Your task to perform on an android device: Open calendar and show me the third week of next month Image 0: 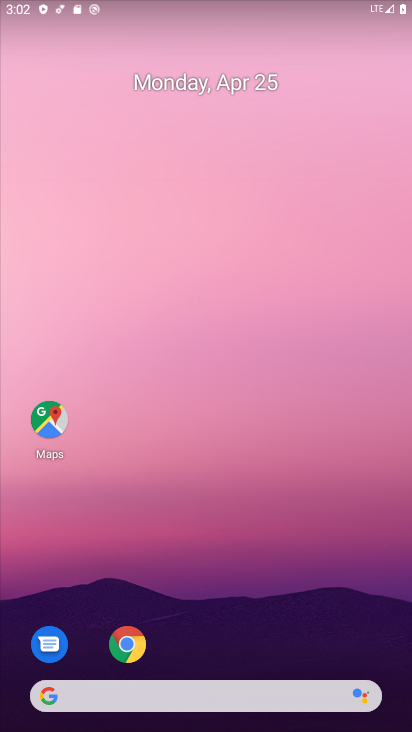
Step 0: drag from (195, 636) to (232, 185)
Your task to perform on an android device: Open calendar and show me the third week of next month Image 1: 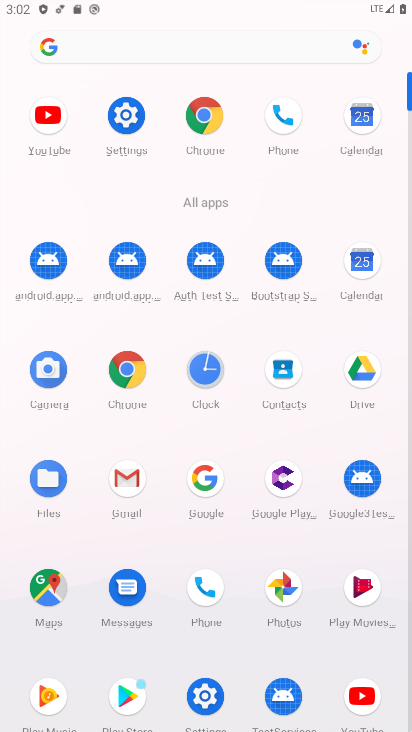
Step 1: click (366, 264)
Your task to perform on an android device: Open calendar and show me the third week of next month Image 2: 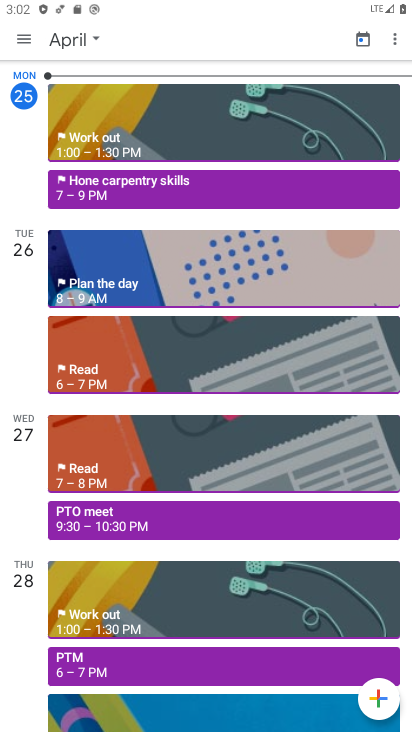
Step 2: click (25, 34)
Your task to perform on an android device: Open calendar and show me the third week of next month Image 3: 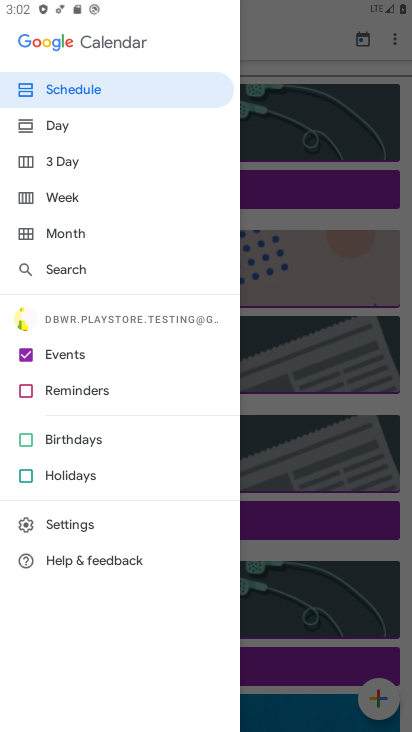
Step 3: click (79, 199)
Your task to perform on an android device: Open calendar and show me the third week of next month Image 4: 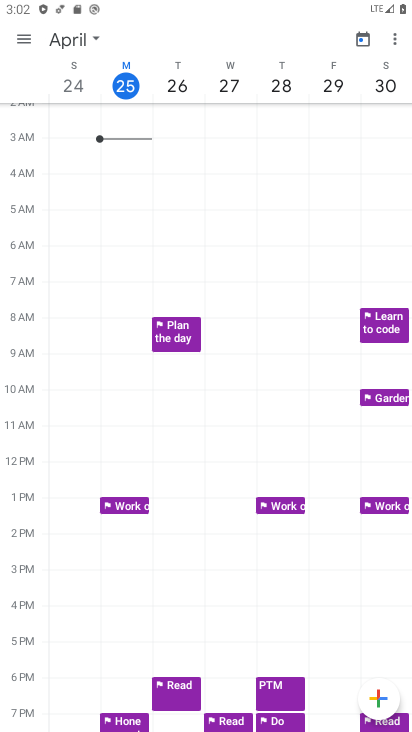
Step 4: click (75, 33)
Your task to perform on an android device: Open calendar and show me the third week of next month Image 5: 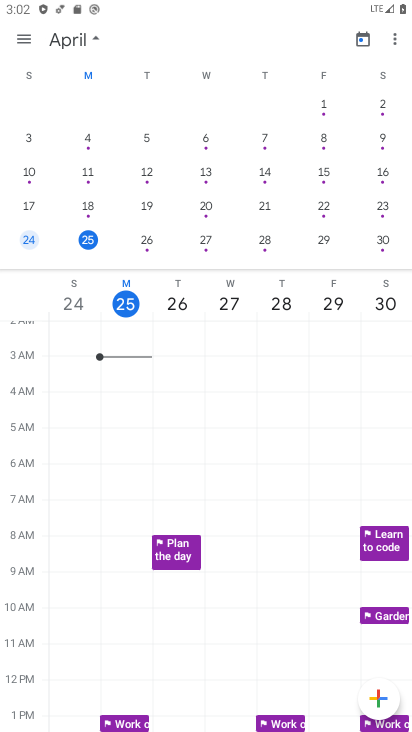
Step 5: click (142, 211)
Your task to perform on an android device: Open calendar and show me the third week of next month Image 6: 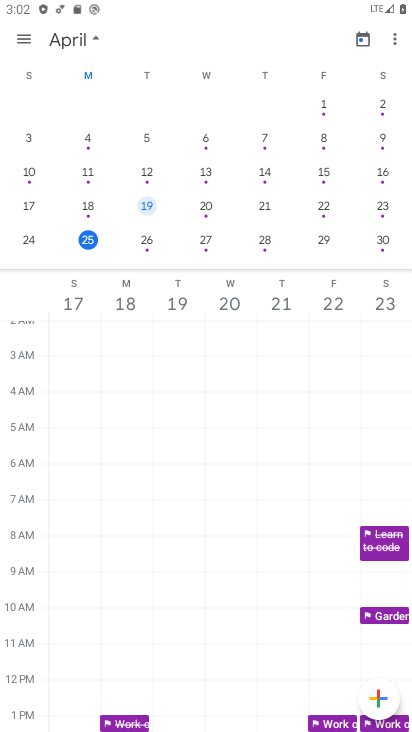
Step 6: drag from (391, 187) to (5, 202)
Your task to perform on an android device: Open calendar and show me the third week of next month Image 7: 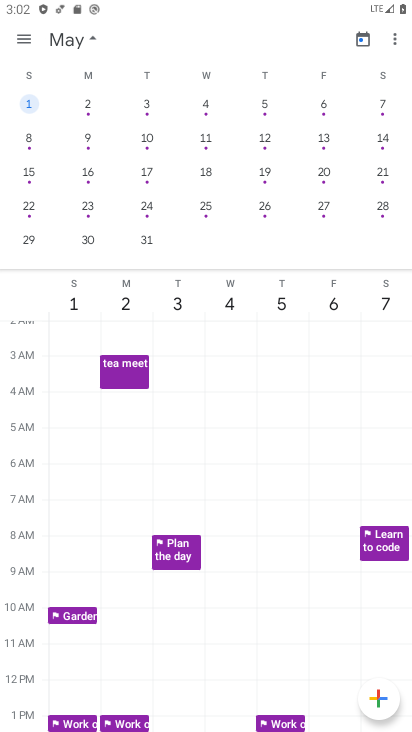
Step 7: click (150, 169)
Your task to perform on an android device: Open calendar and show me the third week of next month Image 8: 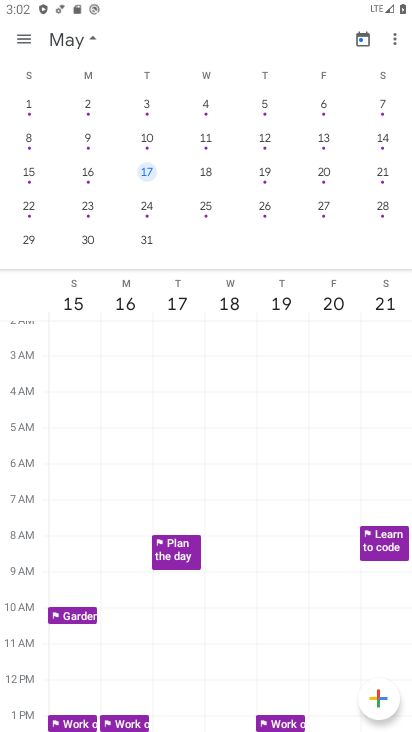
Step 8: task complete